Your task to perform on an android device: toggle notification dots Image 0: 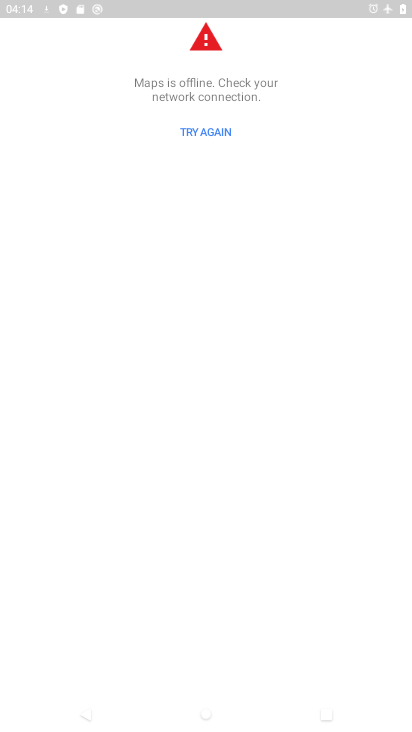
Step 0: press home button
Your task to perform on an android device: toggle notification dots Image 1: 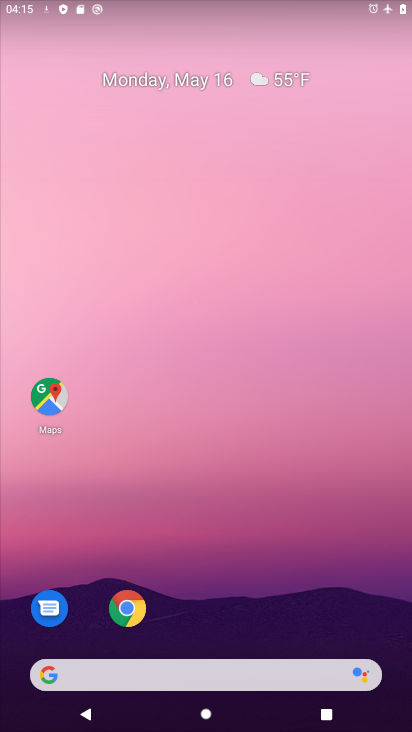
Step 1: drag from (228, 632) to (237, 256)
Your task to perform on an android device: toggle notification dots Image 2: 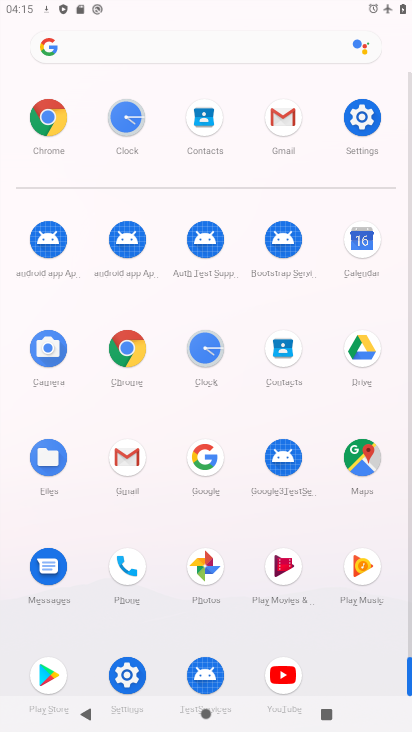
Step 2: click (348, 123)
Your task to perform on an android device: toggle notification dots Image 3: 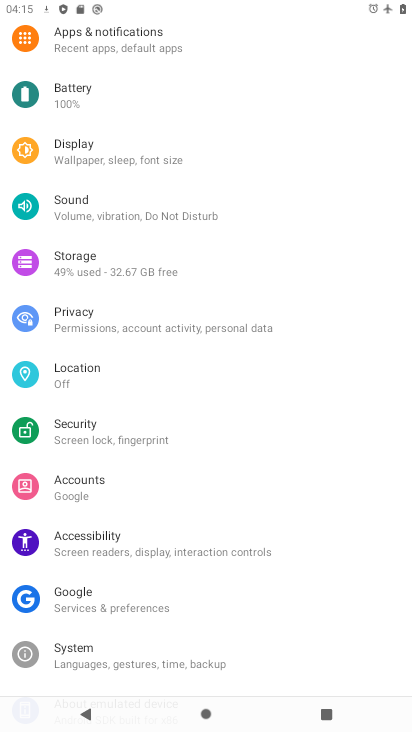
Step 3: click (198, 62)
Your task to perform on an android device: toggle notification dots Image 4: 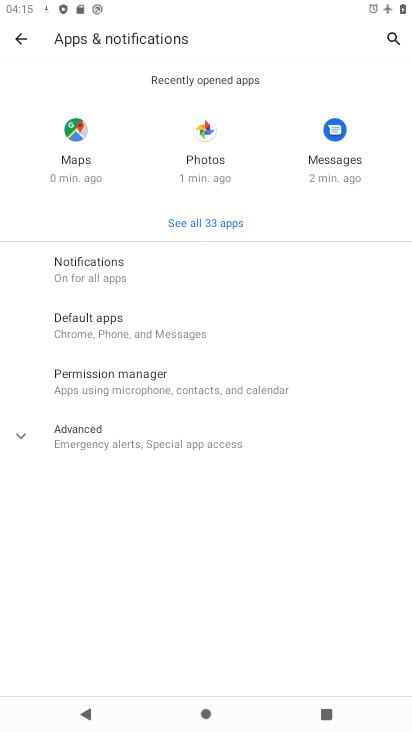
Step 4: click (147, 279)
Your task to perform on an android device: toggle notification dots Image 5: 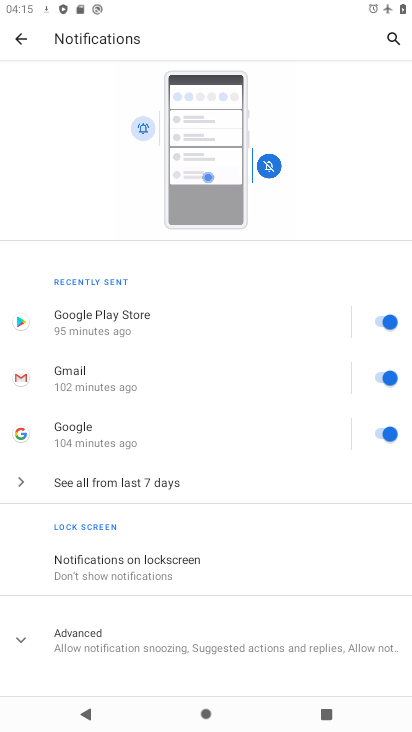
Step 5: drag from (207, 588) to (222, 414)
Your task to perform on an android device: toggle notification dots Image 6: 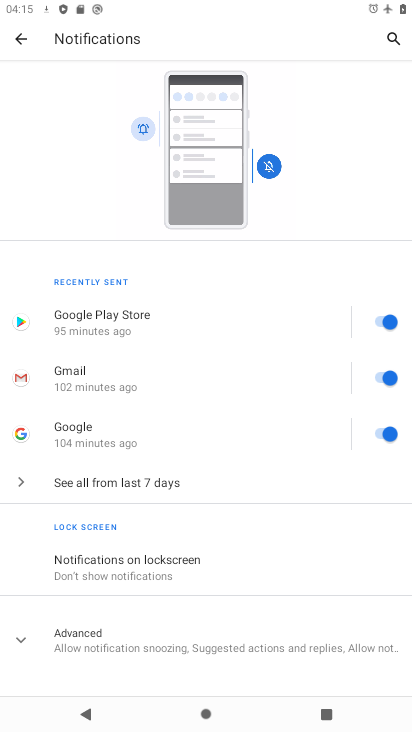
Step 6: click (211, 641)
Your task to perform on an android device: toggle notification dots Image 7: 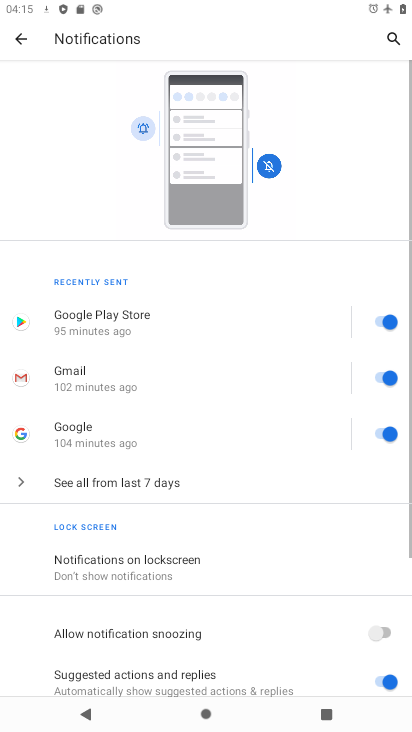
Step 7: drag from (274, 629) to (272, 426)
Your task to perform on an android device: toggle notification dots Image 8: 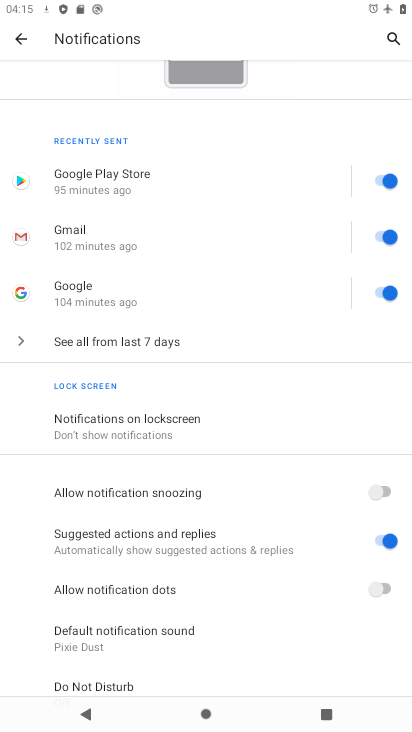
Step 8: click (384, 583)
Your task to perform on an android device: toggle notification dots Image 9: 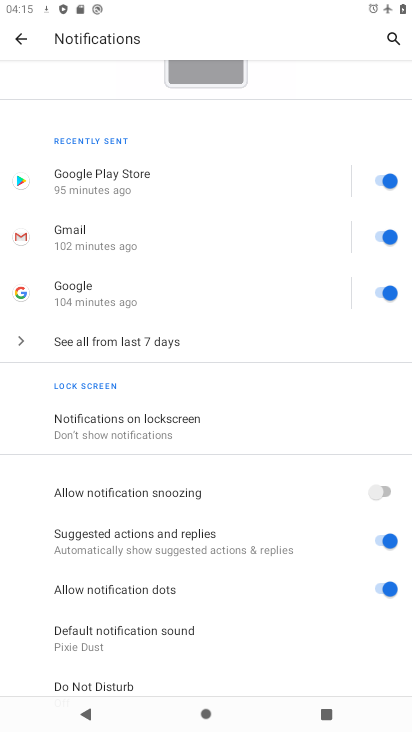
Step 9: task complete